Your task to perform on an android device: Go to notification settings Image 0: 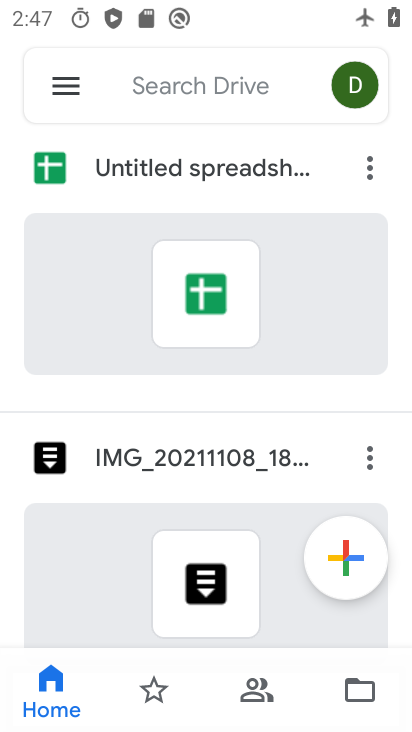
Step 0: press home button
Your task to perform on an android device: Go to notification settings Image 1: 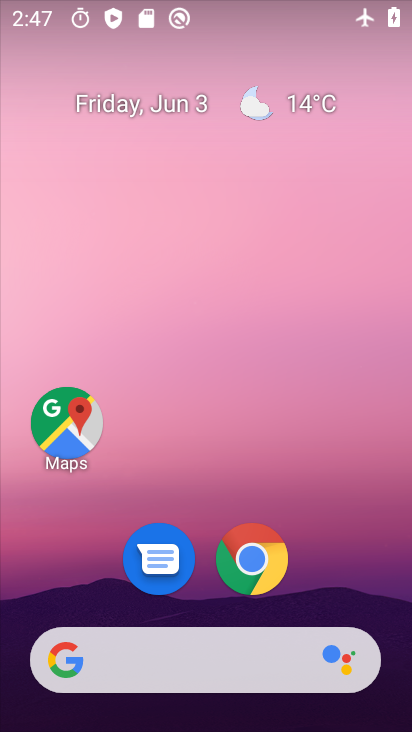
Step 1: drag from (178, 620) to (319, 27)
Your task to perform on an android device: Go to notification settings Image 2: 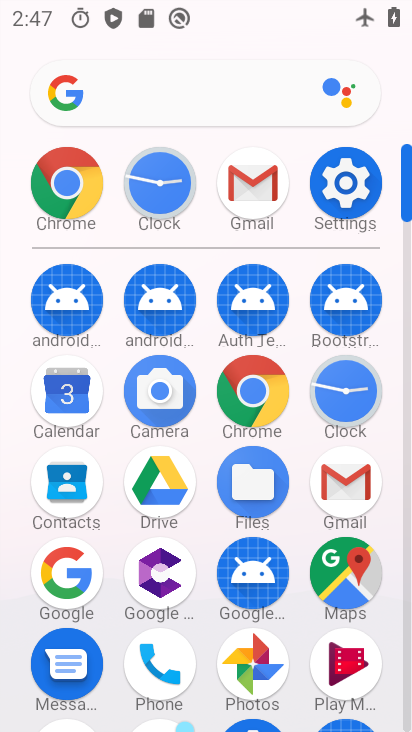
Step 2: click (346, 177)
Your task to perform on an android device: Go to notification settings Image 3: 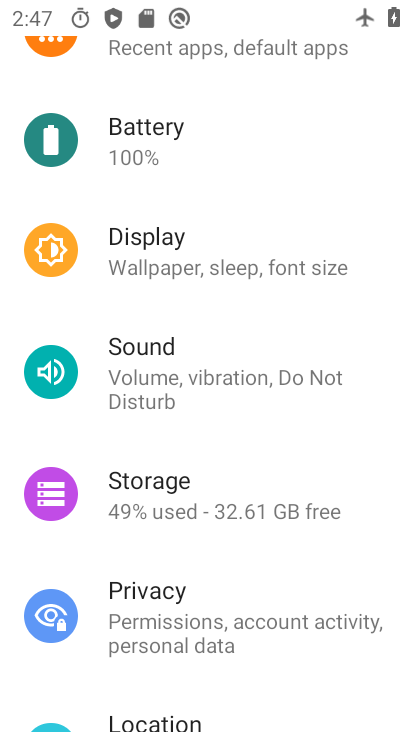
Step 3: drag from (200, 535) to (134, 53)
Your task to perform on an android device: Go to notification settings Image 4: 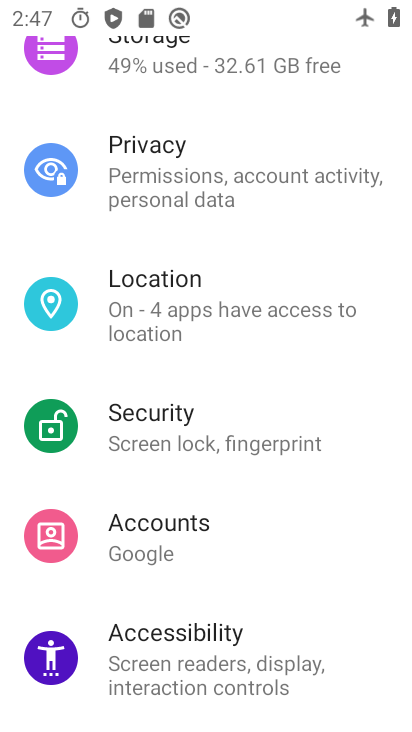
Step 4: drag from (180, 296) to (159, 654)
Your task to perform on an android device: Go to notification settings Image 5: 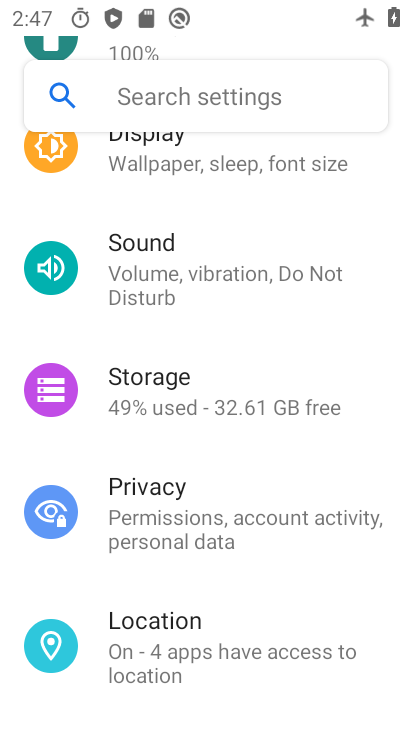
Step 5: drag from (211, 212) to (108, 643)
Your task to perform on an android device: Go to notification settings Image 6: 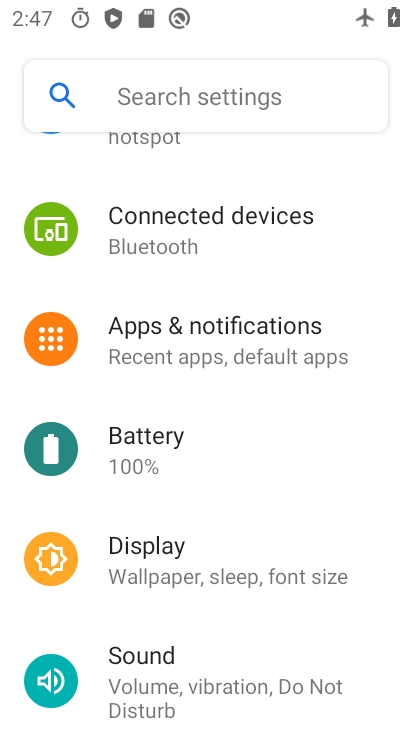
Step 6: click (199, 340)
Your task to perform on an android device: Go to notification settings Image 7: 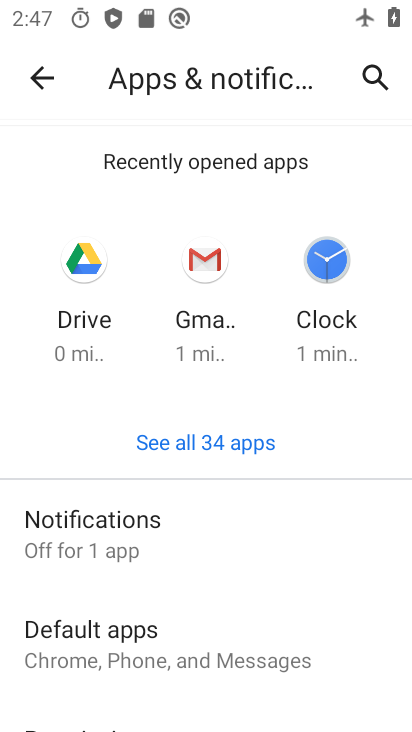
Step 7: click (97, 525)
Your task to perform on an android device: Go to notification settings Image 8: 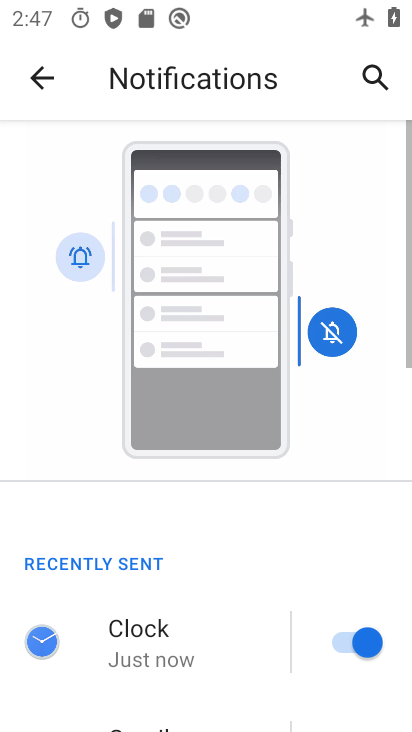
Step 8: task complete